Your task to perform on an android device: Check the settings for the Pandora app Image 0: 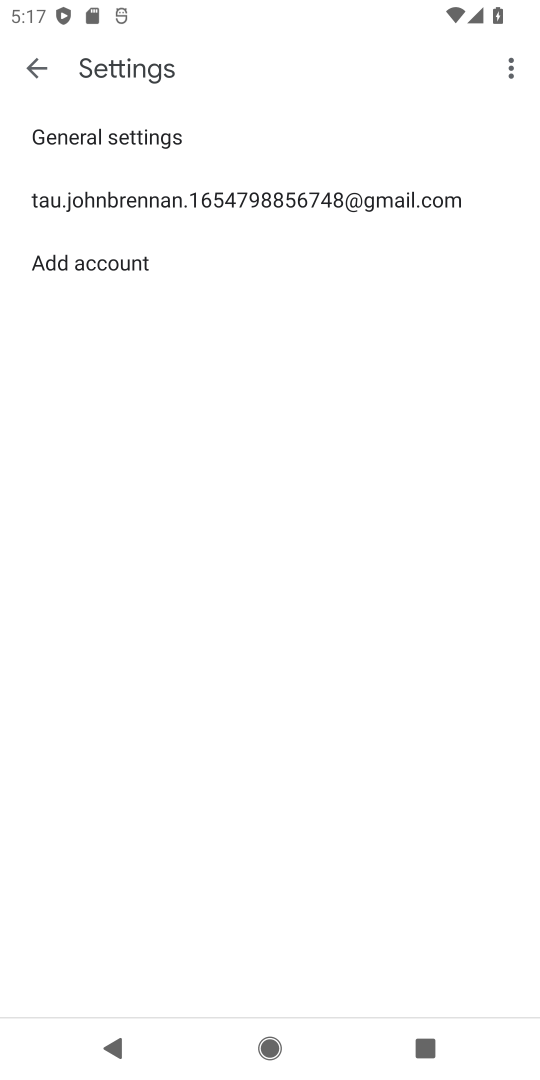
Step 0: press home button
Your task to perform on an android device: Check the settings for the Pandora app Image 1: 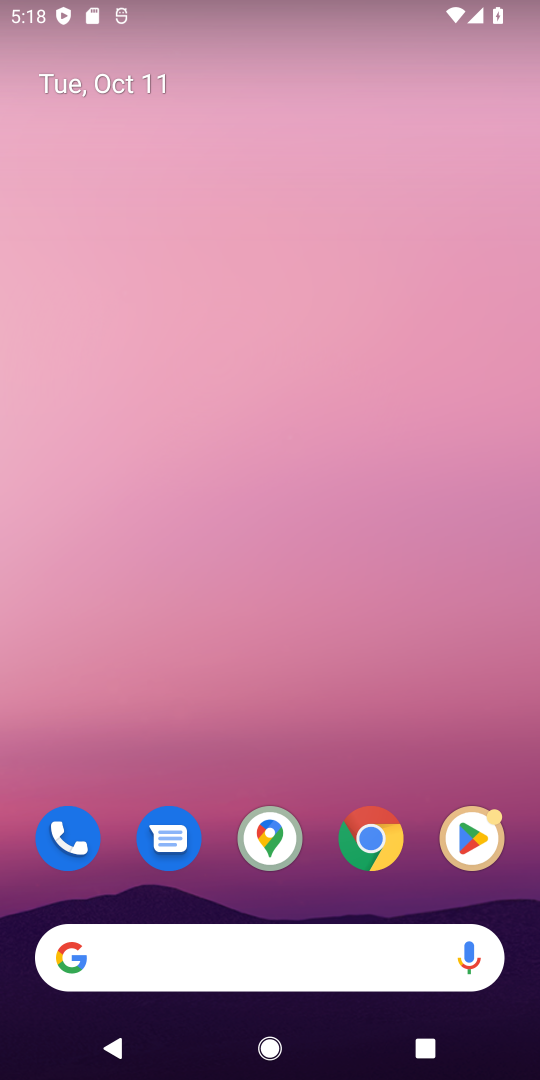
Step 1: click (476, 837)
Your task to perform on an android device: Check the settings for the Pandora app Image 2: 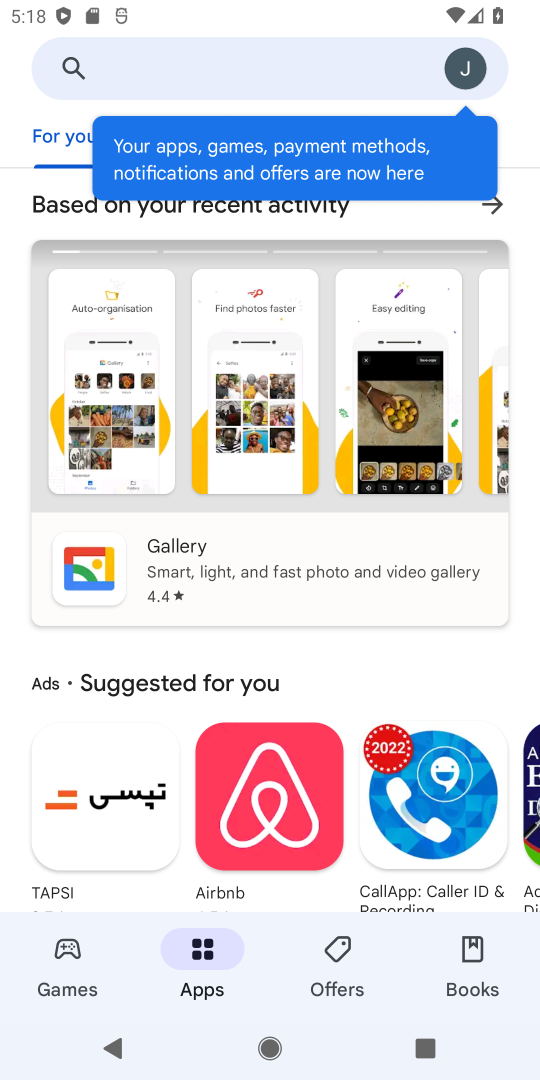
Step 2: click (260, 70)
Your task to perform on an android device: Check the settings for the Pandora app Image 3: 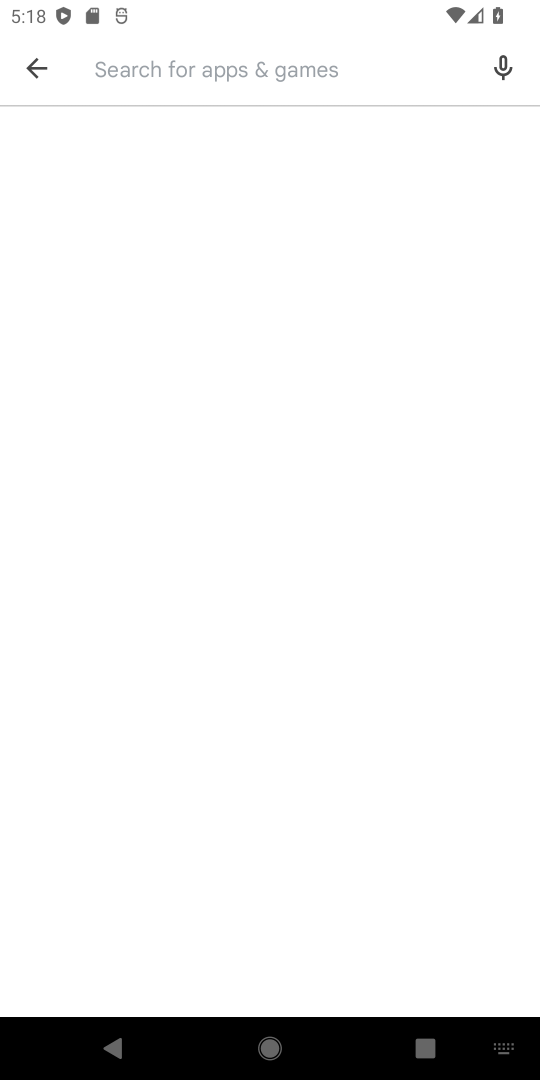
Step 3: click (260, 70)
Your task to perform on an android device: Check the settings for the Pandora app Image 4: 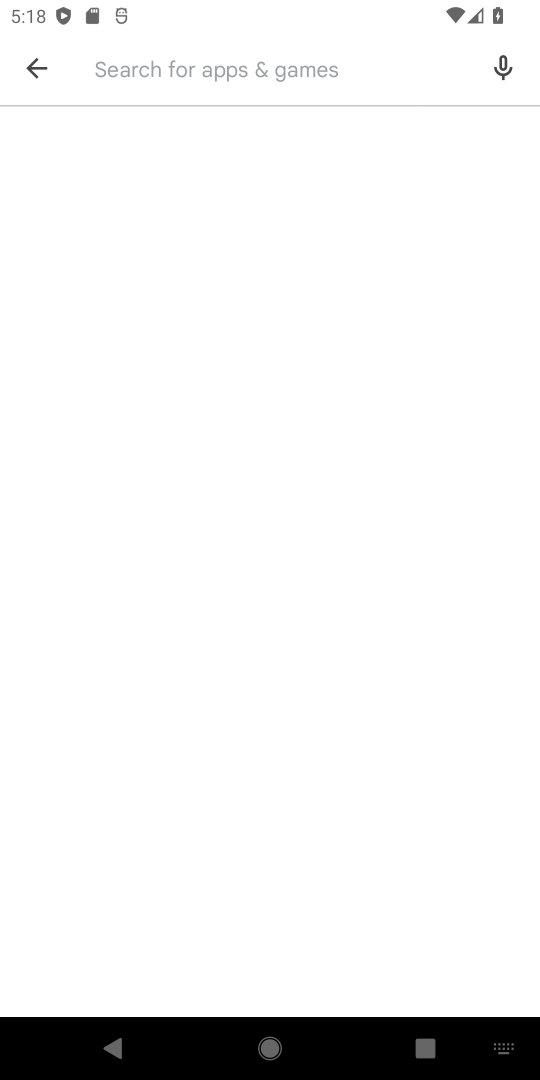
Step 4: type "Pandora"
Your task to perform on an android device: Check the settings for the Pandora app Image 5: 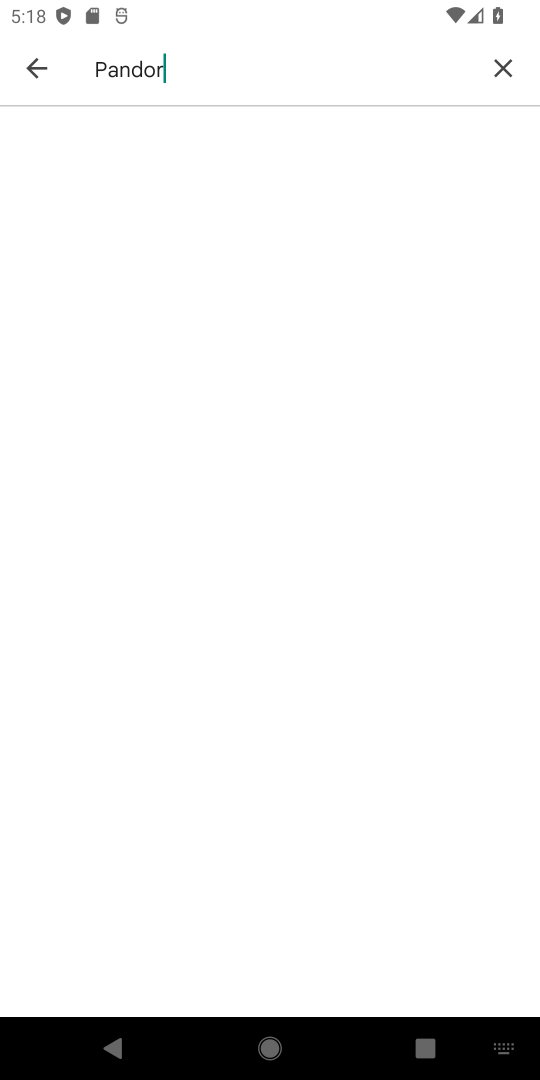
Step 5: type ""
Your task to perform on an android device: Check the settings for the Pandora app Image 6: 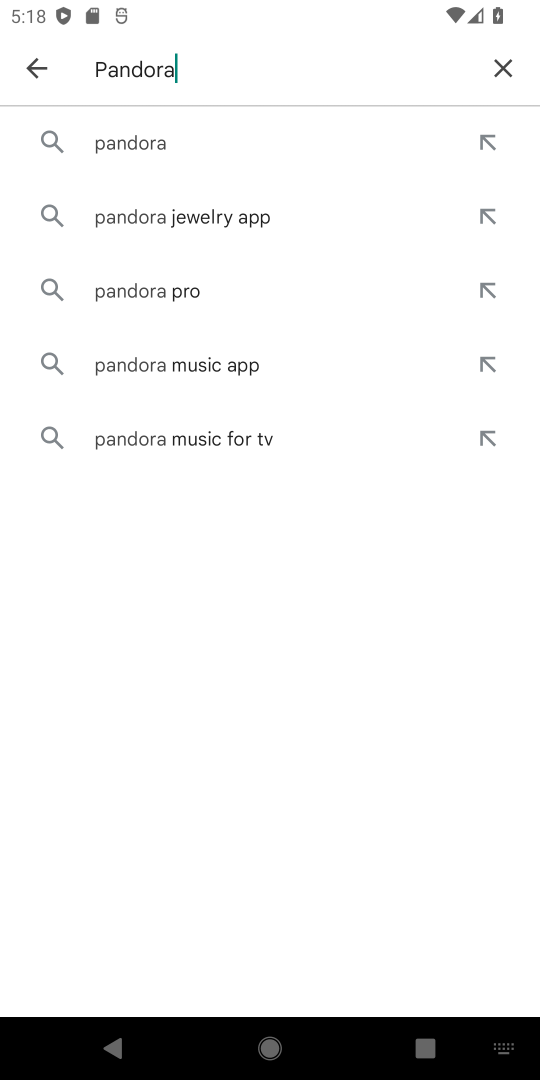
Step 6: click (143, 147)
Your task to perform on an android device: Check the settings for the Pandora app Image 7: 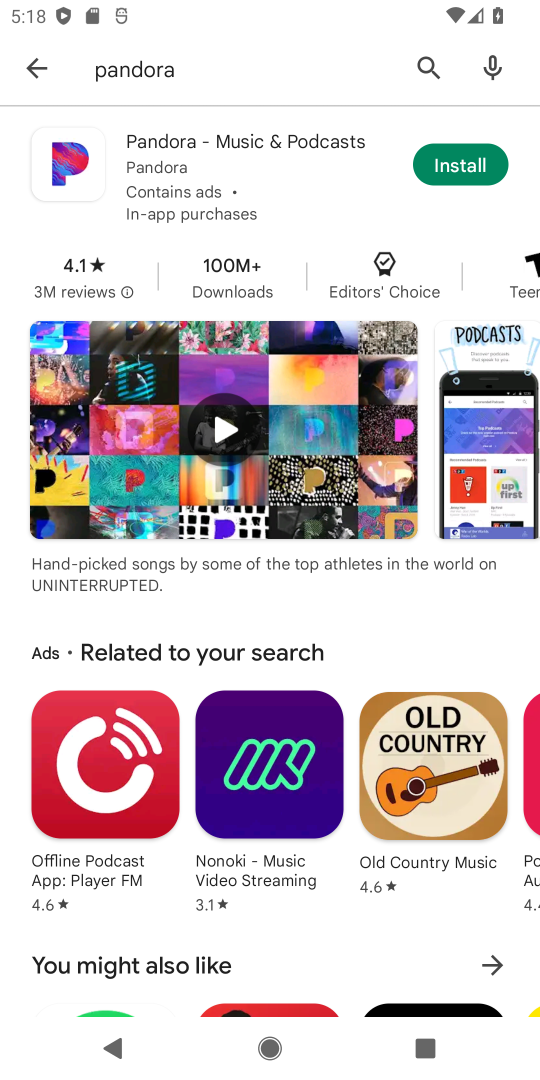
Step 7: click (445, 157)
Your task to perform on an android device: Check the settings for the Pandora app Image 8: 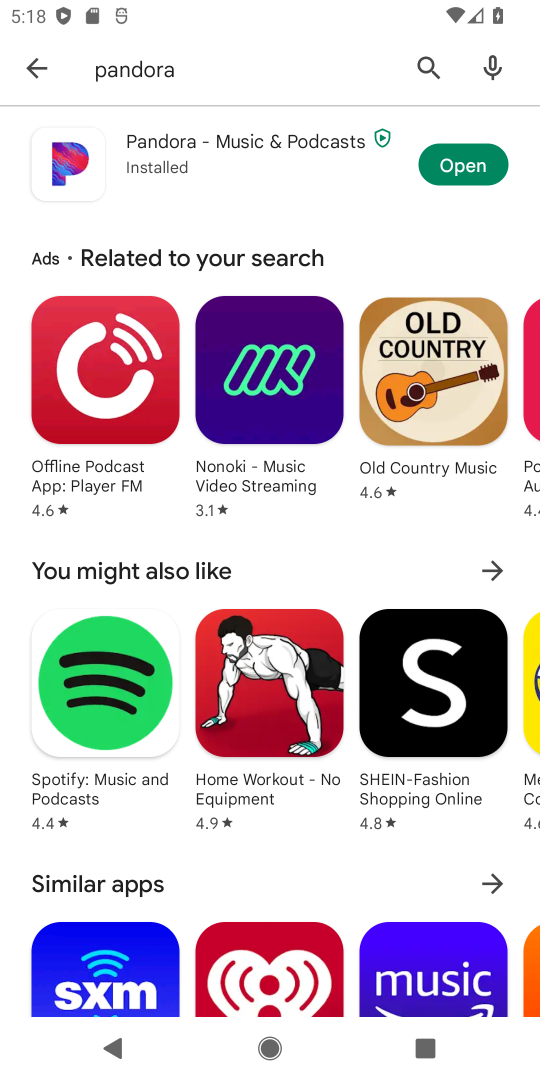
Step 8: click (459, 172)
Your task to perform on an android device: Check the settings for the Pandora app Image 9: 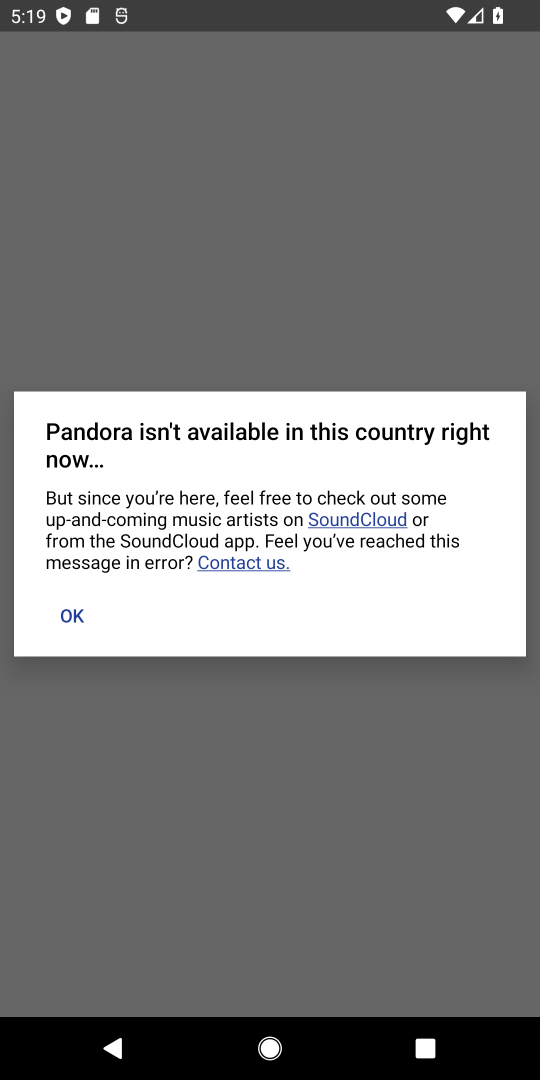
Step 9: click (70, 614)
Your task to perform on an android device: Check the settings for the Pandora app Image 10: 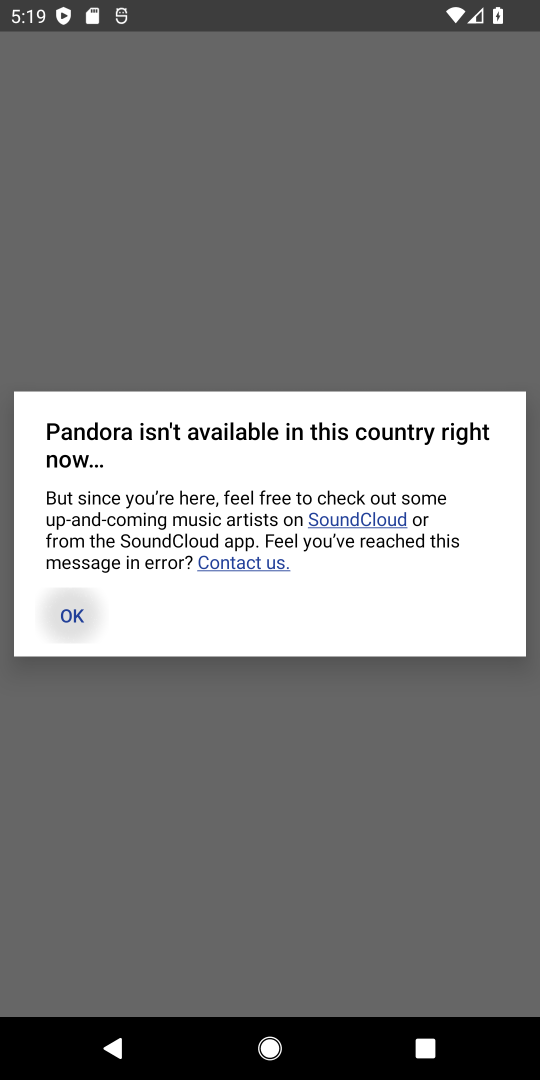
Step 10: click (70, 614)
Your task to perform on an android device: Check the settings for the Pandora app Image 11: 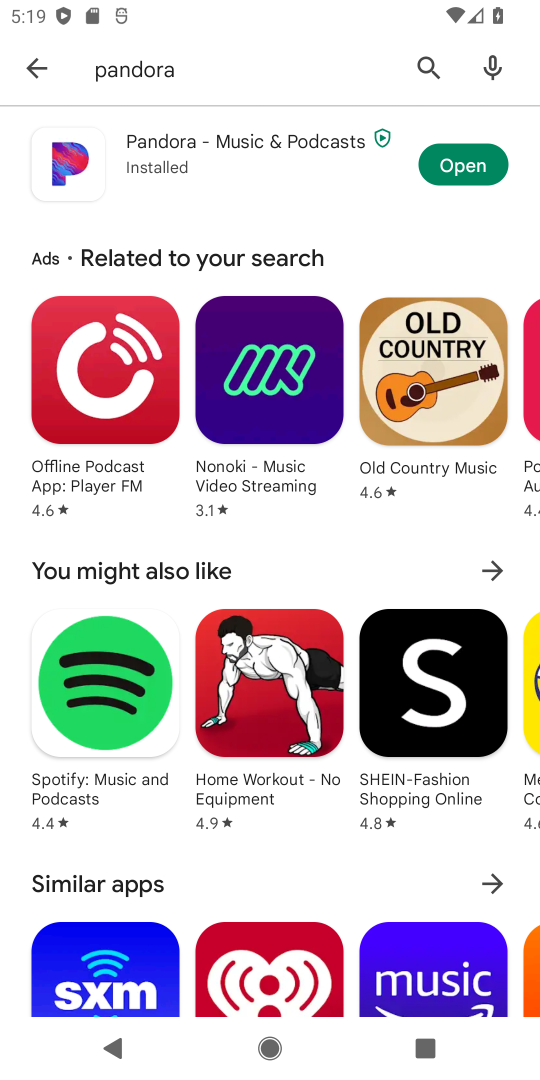
Step 11: task complete